Your task to perform on an android device: toggle pop-ups in chrome Image 0: 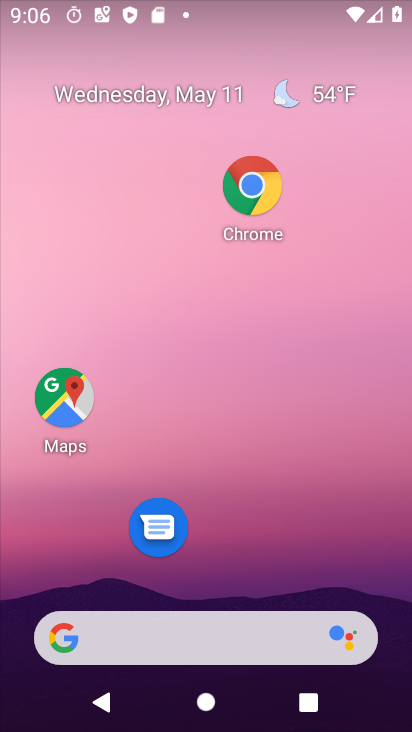
Step 0: click (255, 182)
Your task to perform on an android device: toggle pop-ups in chrome Image 1: 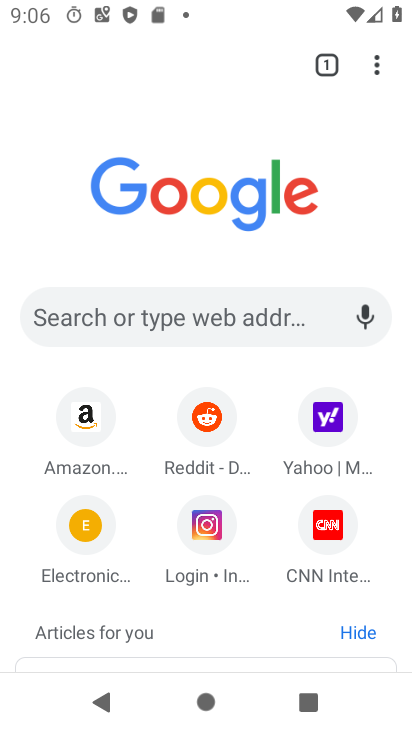
Step 1: click (372, 68)
Your task to perform on an android device: toggle pop-ups in chrome Image 2: 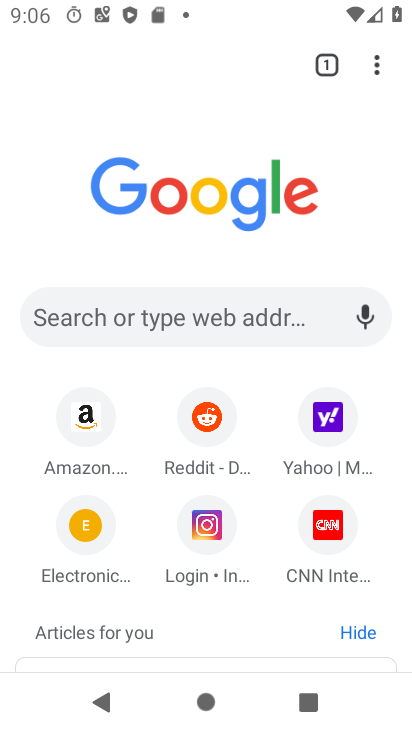
Step 2: click (365, 59)
Your task to perform on an android device: toggle pop-ups in chrome Image 3: 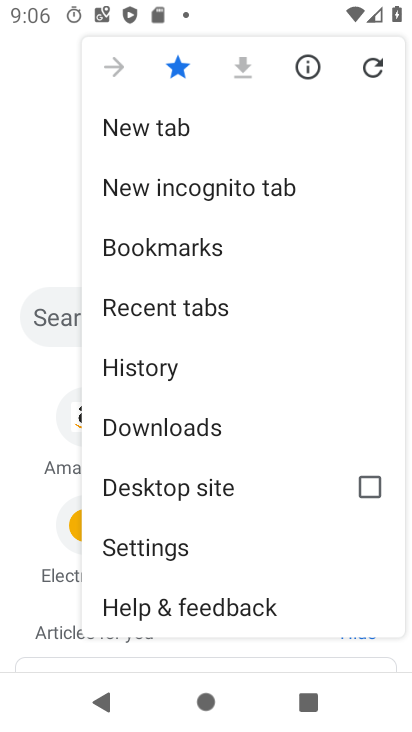
Step 3: click (198, 545)
Your task to perform on an android device: toggle pop-ups in chrome Image 4: 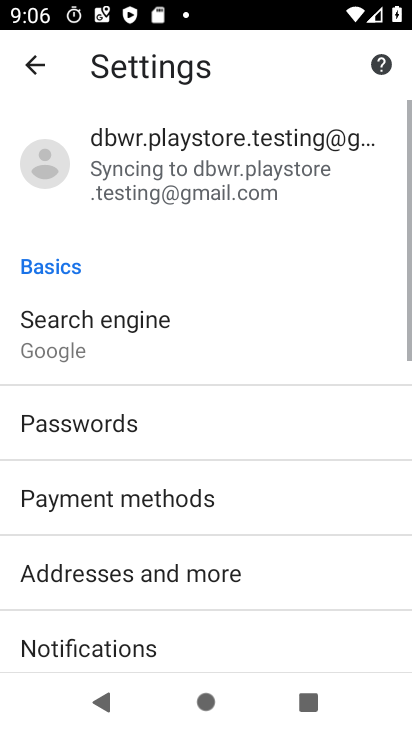
Step 4: drag from (198, 545) to (266, 17)
Your task to perform on an android device: toggle pop-ups in chrome Image 5: 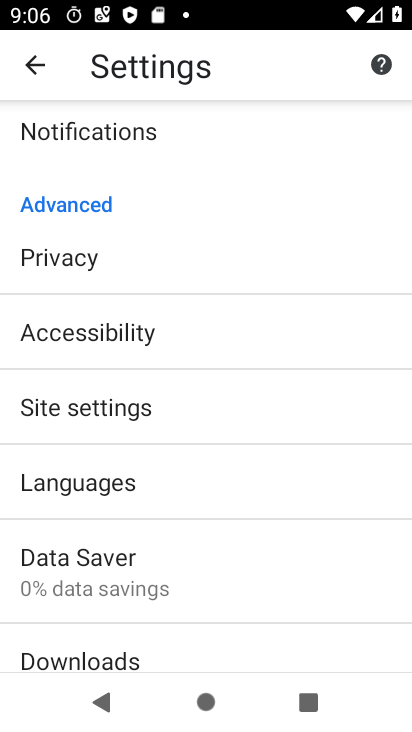
Step 5: click (81, 386)
Your task to perform on an android device: toggle pop-ups in chrome Image 6: 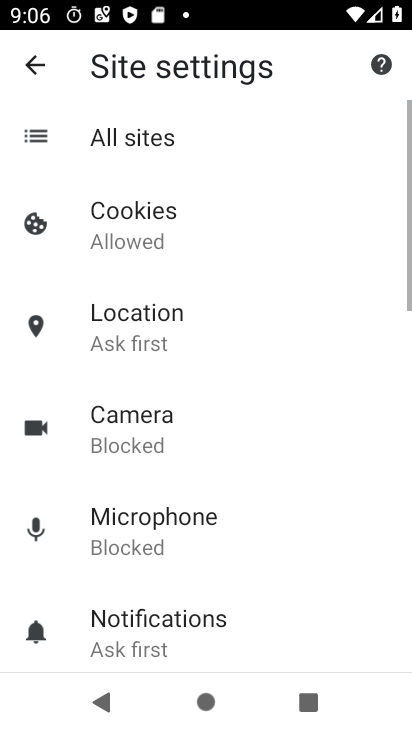
Step 6: drag from (299, 574) to (316, 51)
Your task to perform on an android device: toggle pop-ups in chrome Image 7: 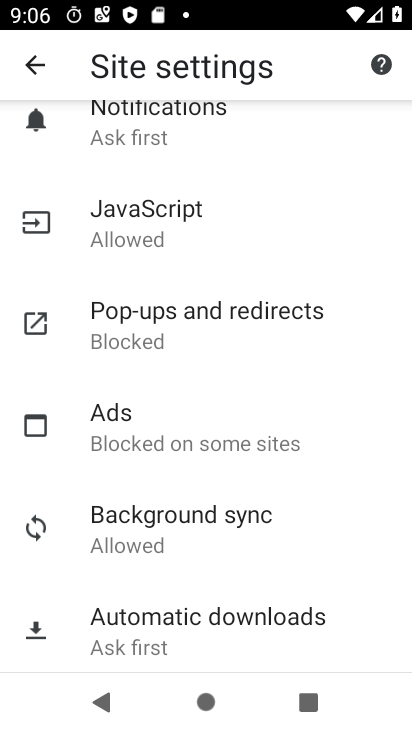
Step 7: click (166, 308)
Your task to perform on an android device: toggle pop-ups in chrome Image 8: 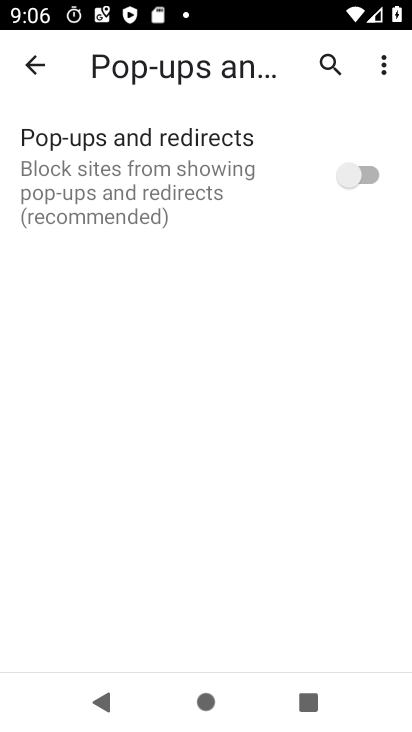
Step 8: click (356, 173)
Your task to perform on an android device: toggle pop-ups in chrome Image 9: 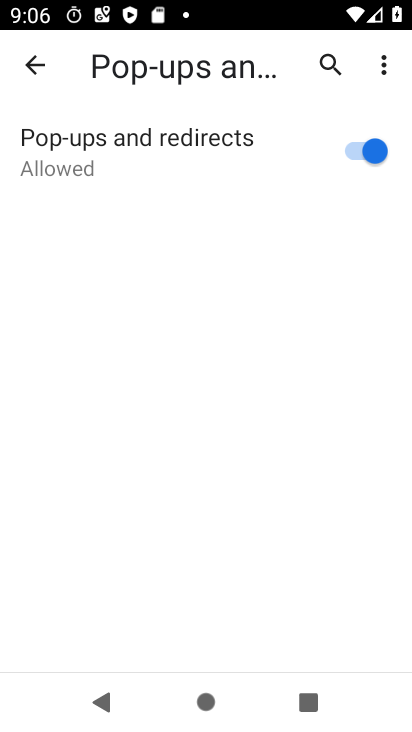
Step 9: task complete